Your task to perform on an android device: Search for seafood restaurants on Google Maps Image 0: 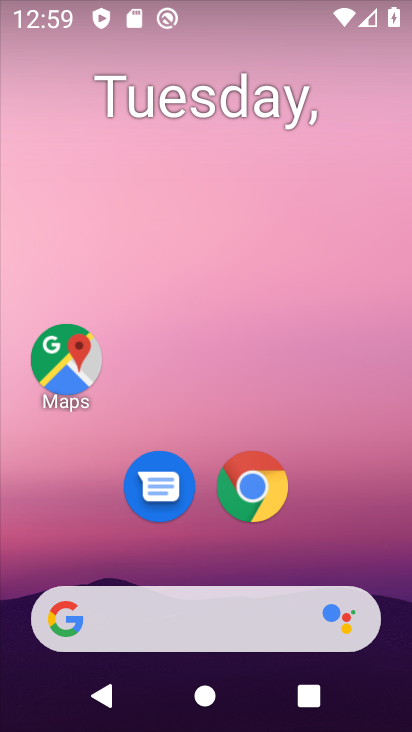
Step 0: click (79, 364)
Your task to perform on an android device: Search for seafood restaurants on Google Maps Image 1: 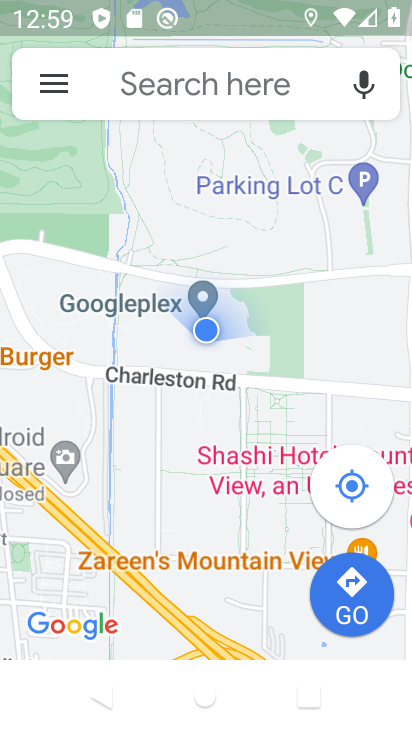
Step 1: click (259, 80)
Your task to perform on an android device: Search for seafood restaurants on Google Maps Image 2: 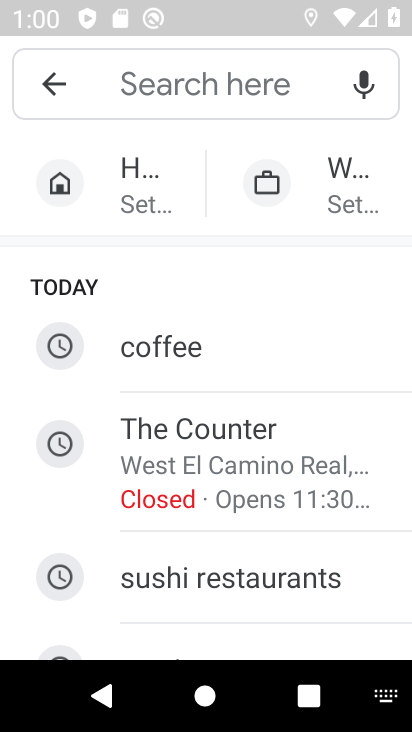
Step 2: type "seafood restaurants"
Your task to perform on an android device: Search for seafood restaurants on Google Maps Image 3: 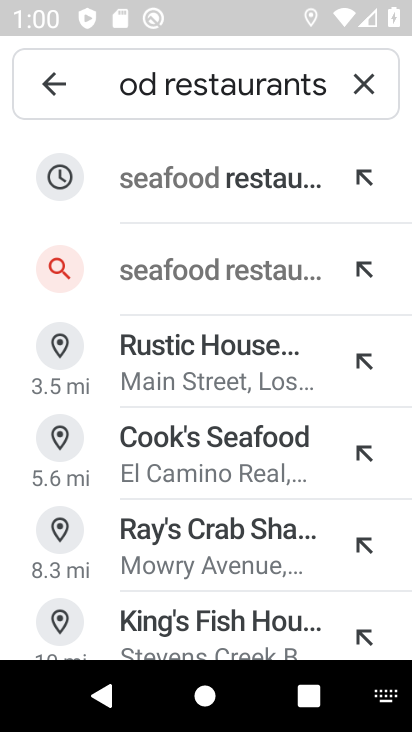
Step 3: click (184, 176)
Your task to perform on an android device: Search for seafood restaurants on Google Maps Image 4: 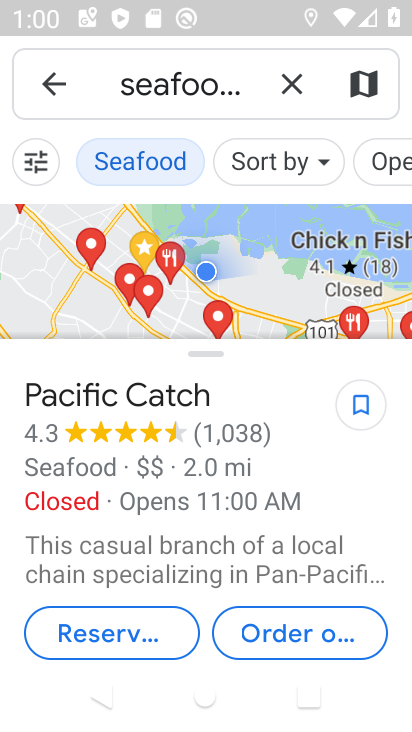
Step 4: task complete